Your task to perform on an android device: Open Maps and search for coffee Image 0: 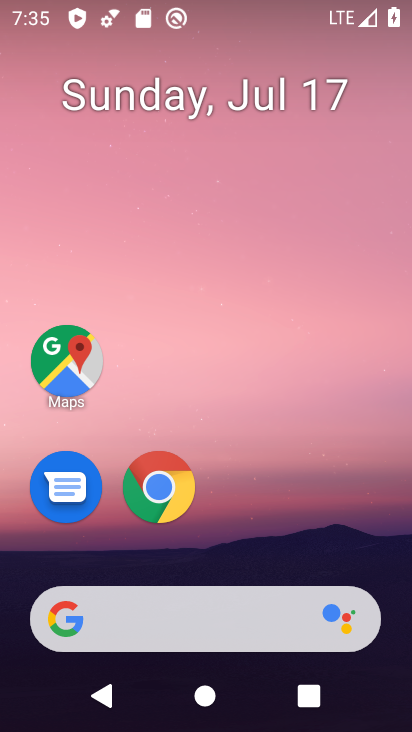
Step 0: drag from (368, 523) to (398, 115)
Your task to perform on an android device: Open Maps and search for coffee Image 1: 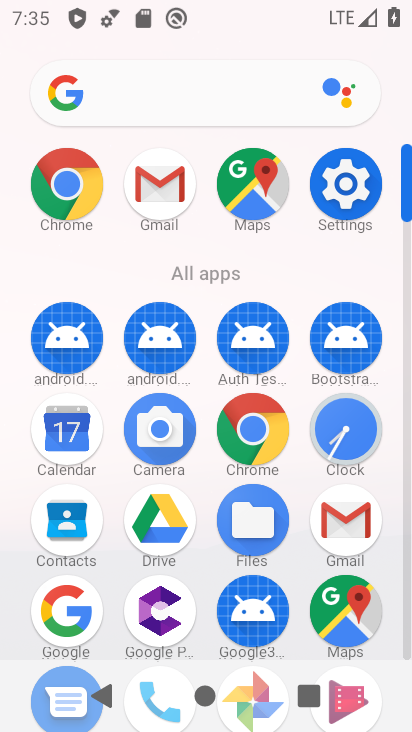
Step 1: click (339, 611)
Your task to perform on an android device: Open Maps and search for coffee Image 2: 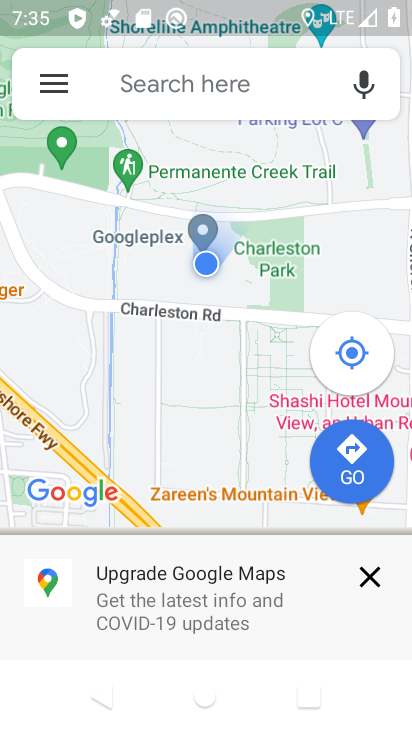
Step 2: click (181, 90)
Your task to perform on an android device: Open Maps and search for coffee Image 3: 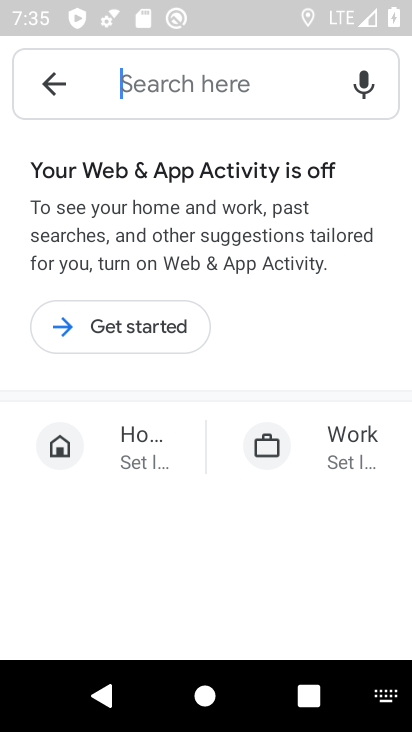
Step 3: type "coffee"
Your task to perform on an android device: Open Maps and search for coffee Image 4: 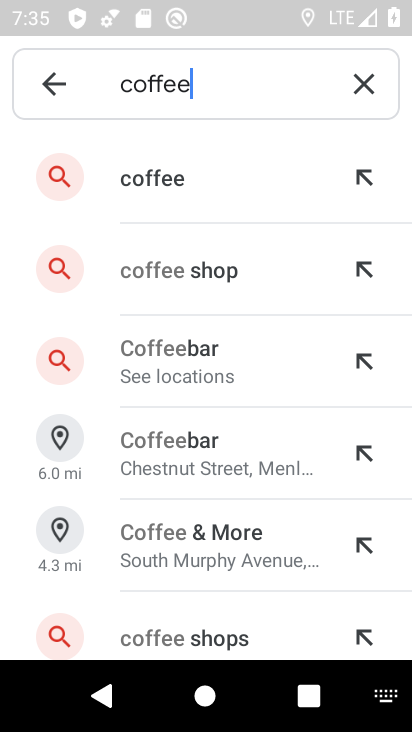
Step 4: click (302, 198)
Your task to perform on an android device: Open Maps and search for coffee Image 5: 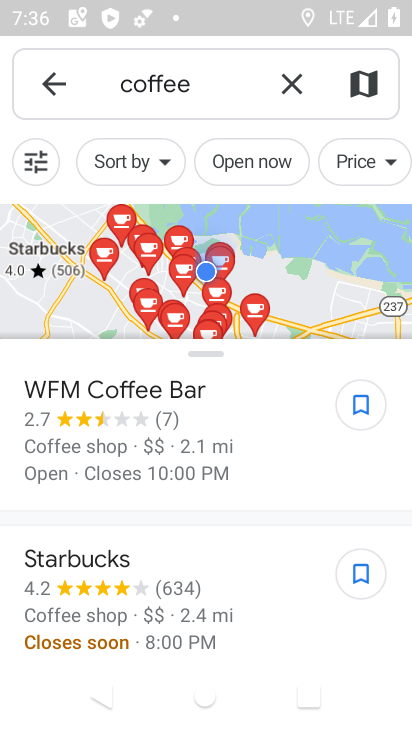
Step 5: task complete